Your task to perform on an android device: check battery use Image 0: 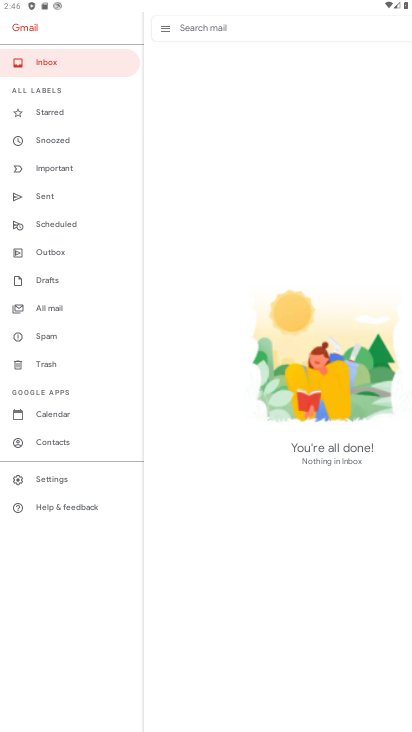
Step 0: press home button
Your task to perform on an android device: check battery use Image 1: 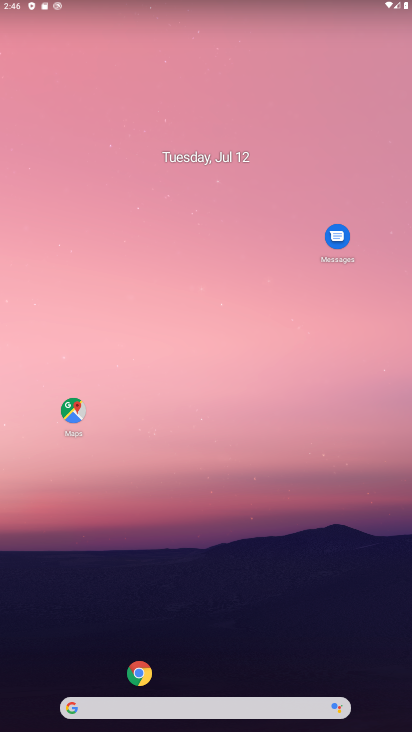
Step 1: drag from (34, 688) to (400, 6)
Your task to perform on an android device: check battery use Image 2: 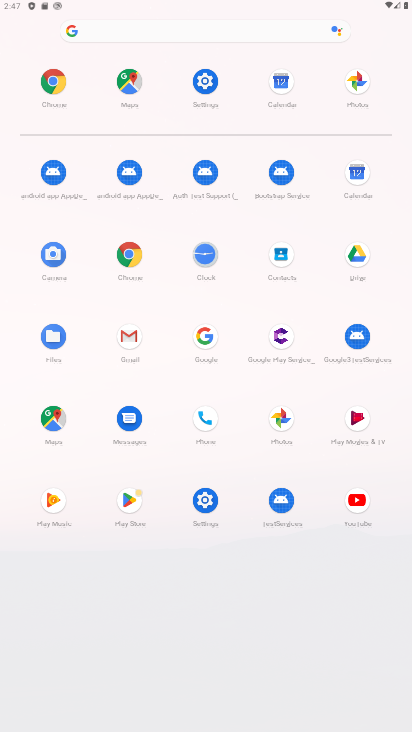
Step 2: click (201, 501)
Your task to perform on an android device: check battery use Image 3: 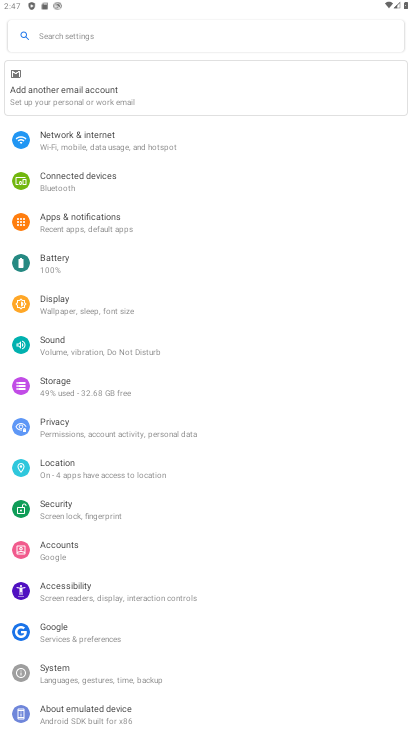
Step 3: click (80, 264)
Your task to perform on an android device: check battery use Image 4: 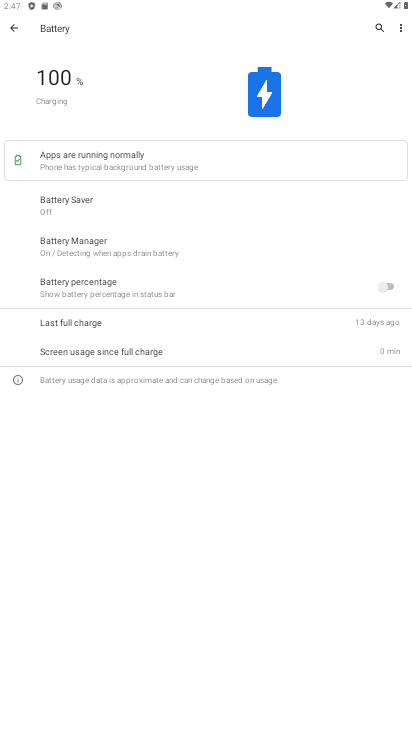
Step 4: task complete